Your task to perform on an android device: Search for pizza restaurants on Maps Image 0: 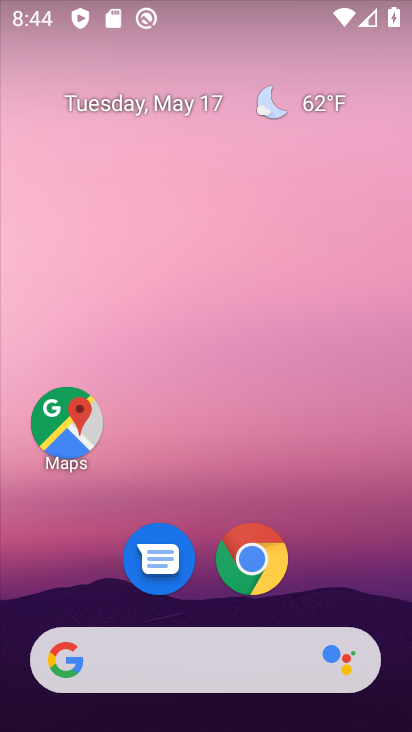
Step 0: click (67, 448)
Your task to perform on an android device: Search for pizza restaurants on Maps Image 1: 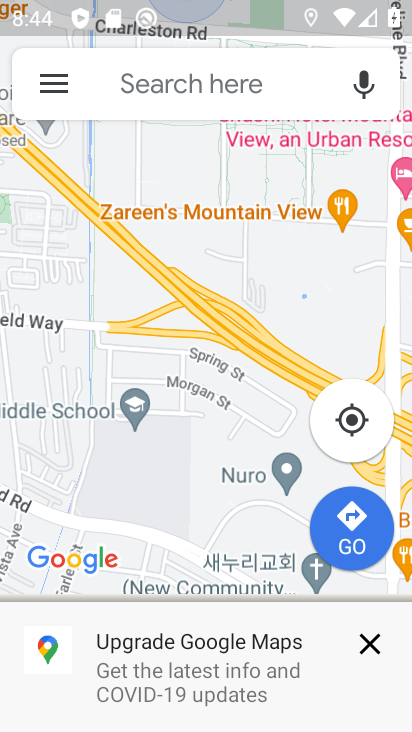
Step 1: click (216, 101)
Your task to perform on an android device: Search for pizza restaurants on Maps Image 2: 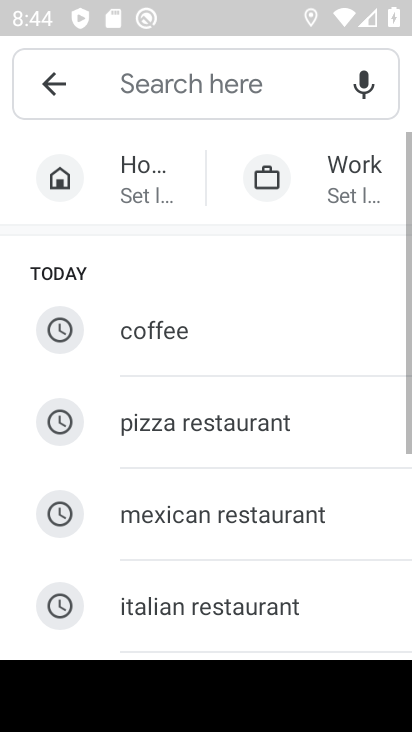
Step 2: click (194, 431)
Your task to perform on an android device: Search for pizza restaurants on Maps Image 3: 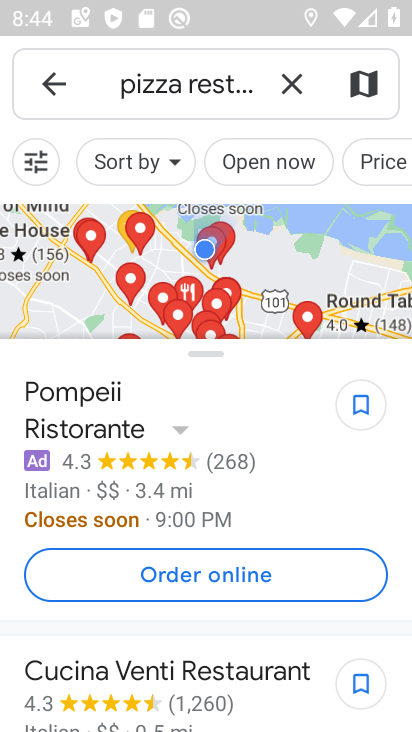
Step 3: task complete